Your task to perform on an android device: Open the calendar app, open the side menu, and click the "Day" option Image 0: 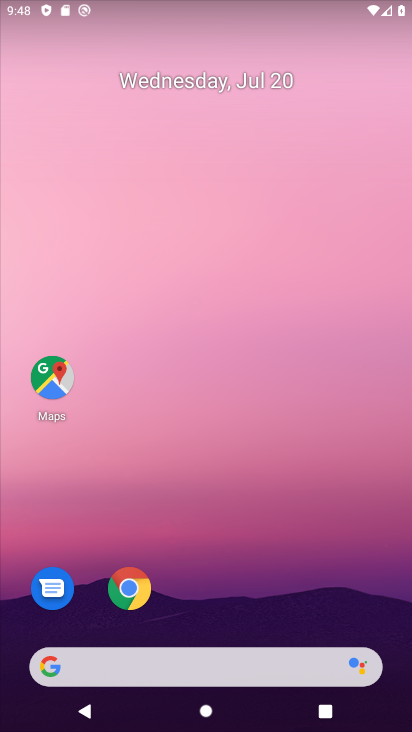
Step 0: drag from (384, 624) to (337, 4)
Your task to perform on an android device: Open the calendar app, open the side menu, and click the "Day" option Image 1: 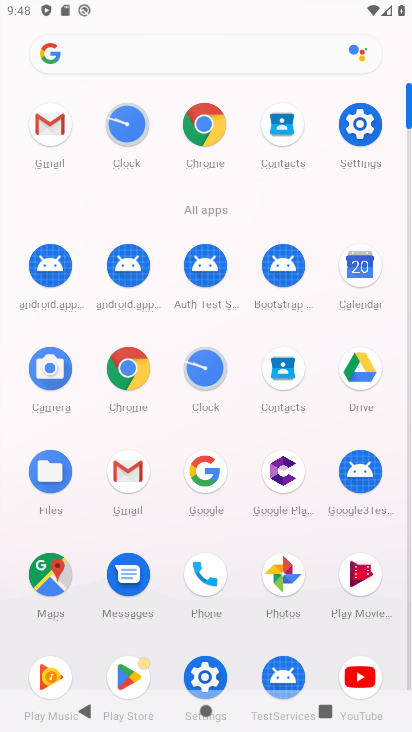
Step 1: click (360, 269)
Your task to perform on an android device: Open the calendar app, open the side menu, and click the "Day" option Image 2: 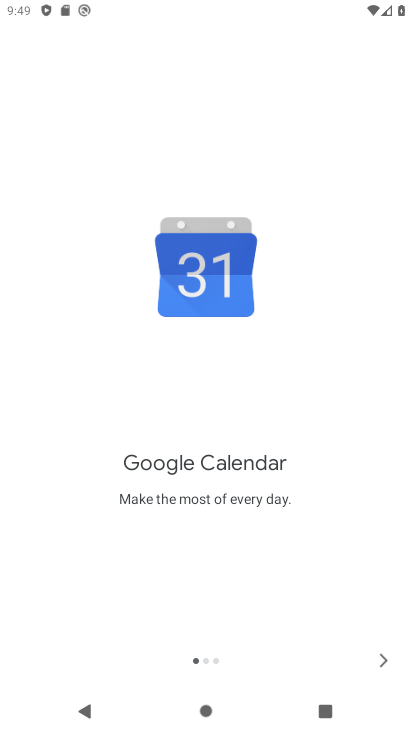
Step 2: click (381, 648)
Your task to perform on an android device: Open the calendar app, open the side menu, and click the "Day" option Image 3: 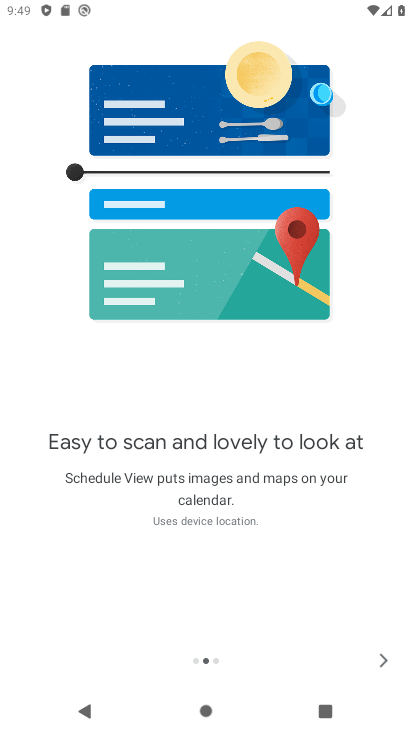
Step 3: click (381, 648)
Your task to perform on an android device: Open the calendar app, open the side menu, and click the "Day" option Image 4: 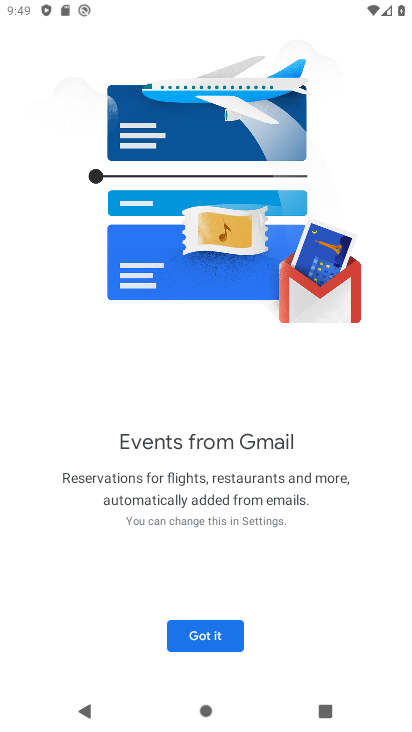
Step 4: click (207, 636)
Your task to perform on an android device: Open the calendar app, open the side menu, and click the "Day" option Image 5: 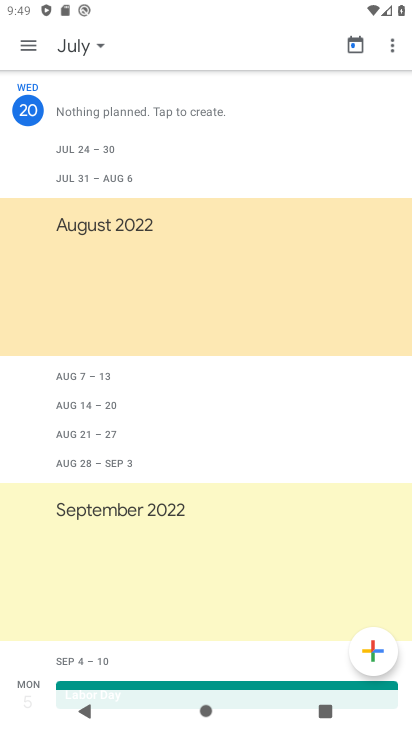
Step 5: click (23, 48)
Your task to perform on an android device: Open the calendar app, open the side menu, and click the "Day" option Image 6: 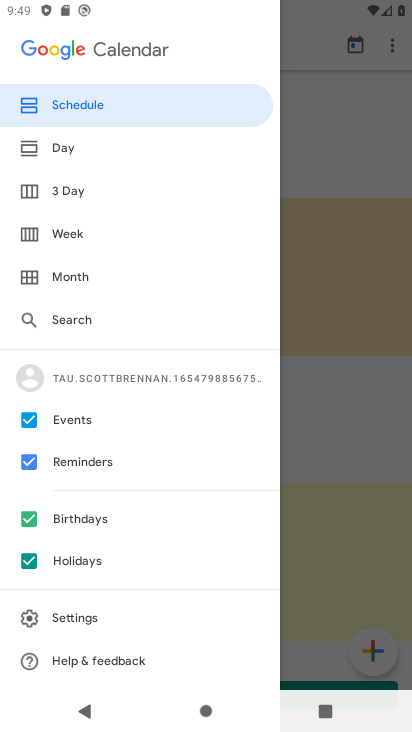
Step 6: click (65, 153)
Your task to perform on an android device: Open the calendar app, open the side menu, and click the "Day" option Image 7: 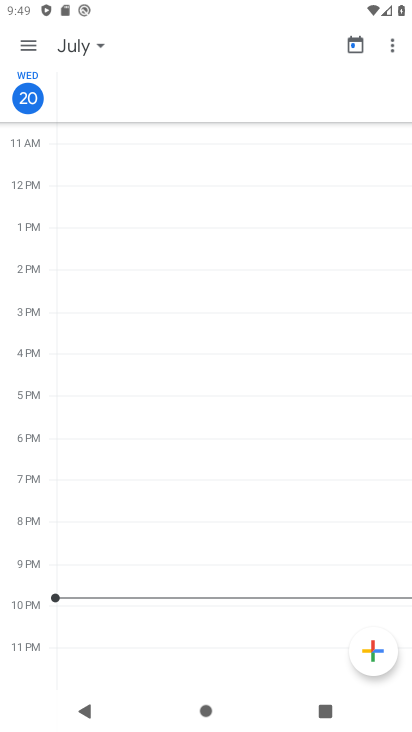
Step 7: task complete